Your task to perform on an android device: Search for Mexican restaurants on Maps Image 0: 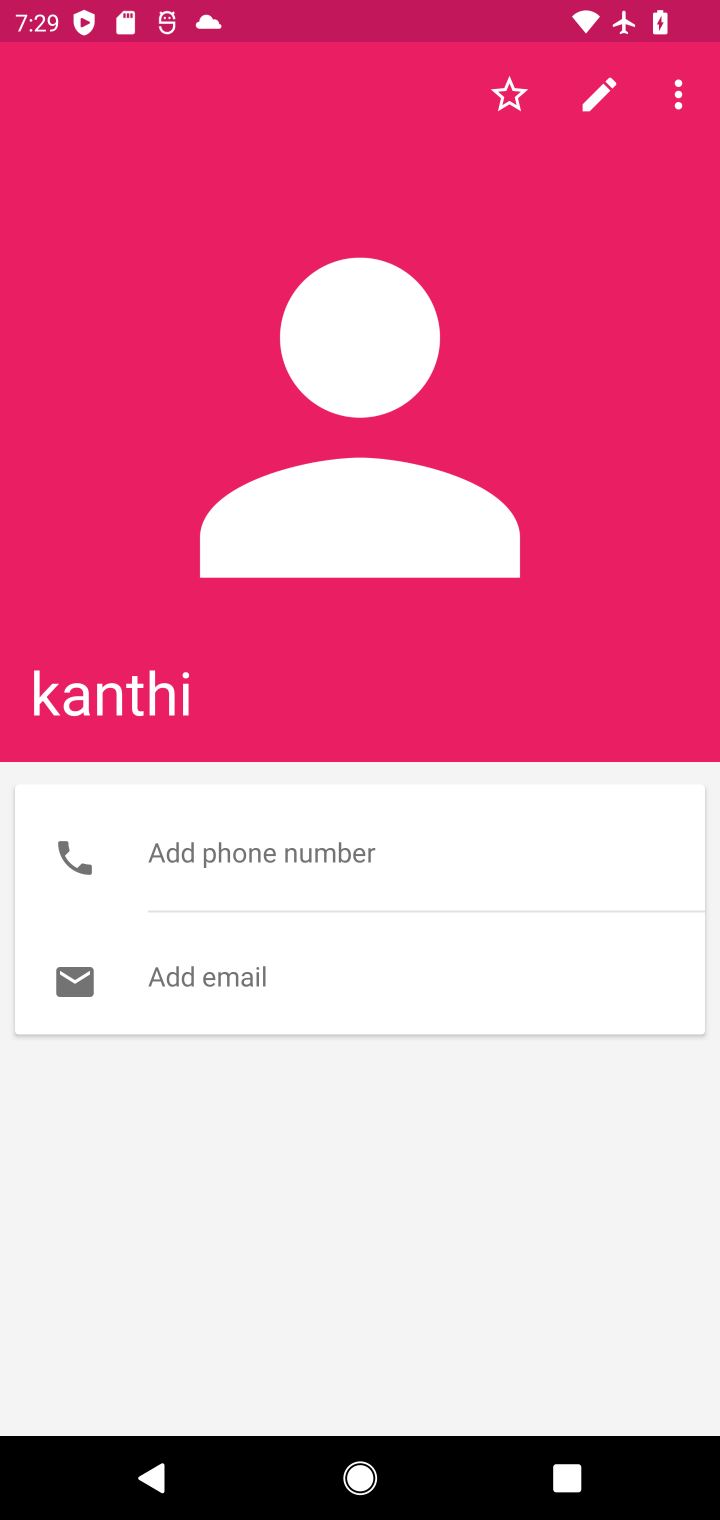
Step 0: press home button
Your task to perform on an android device: Search for Mexican restaurants on Maps Image 1: 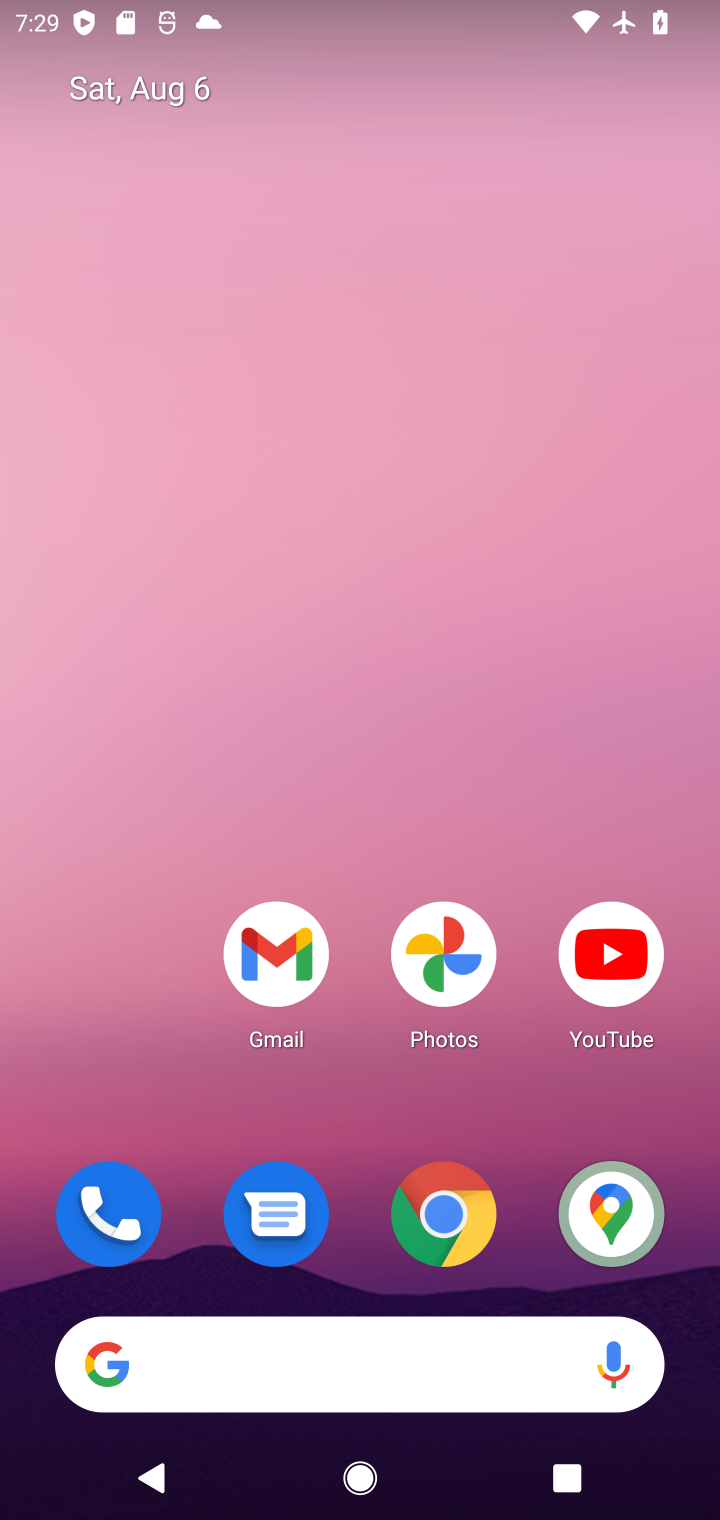
Step 1: drag from (363, 1111) to (239, 46)
Your task to perform on an android device: Search for Mexican restaurants on Maps Image 2: 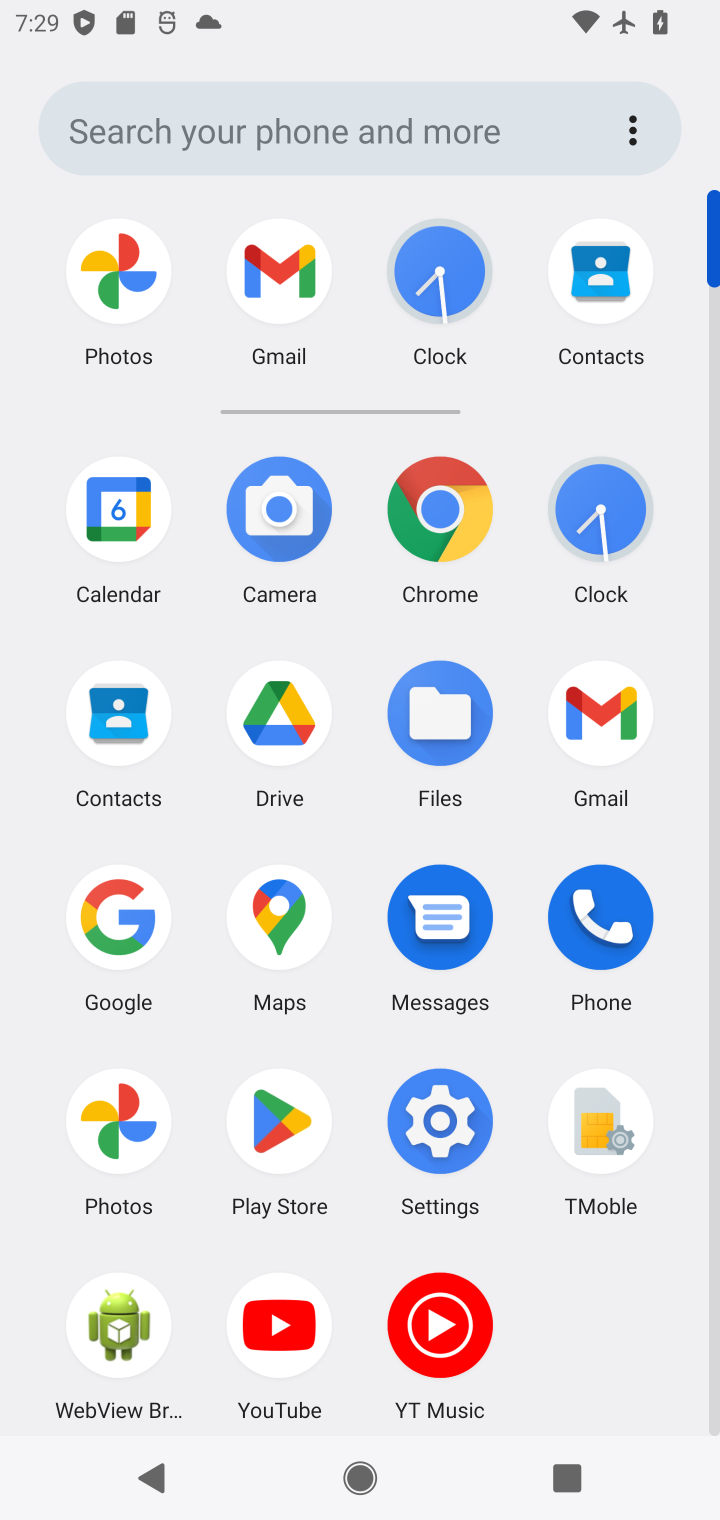
Step 2: click (287, 939)
Your task to perform on an android device: Search for Mexican restaurants on Maps Image 3: 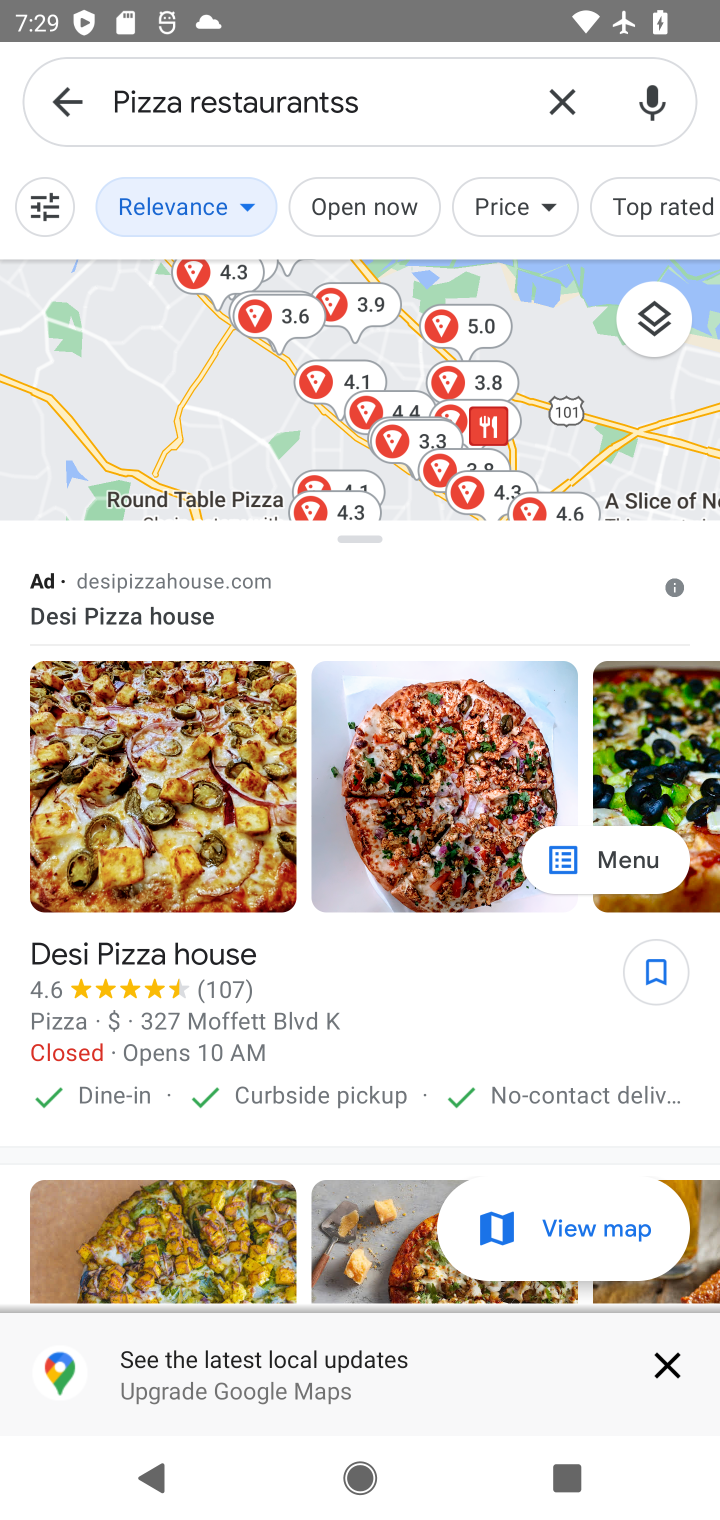
Step 3: click (139, 100)
Your task to perform on an android device: Search for Mexican restaurants on Maps Image 4: 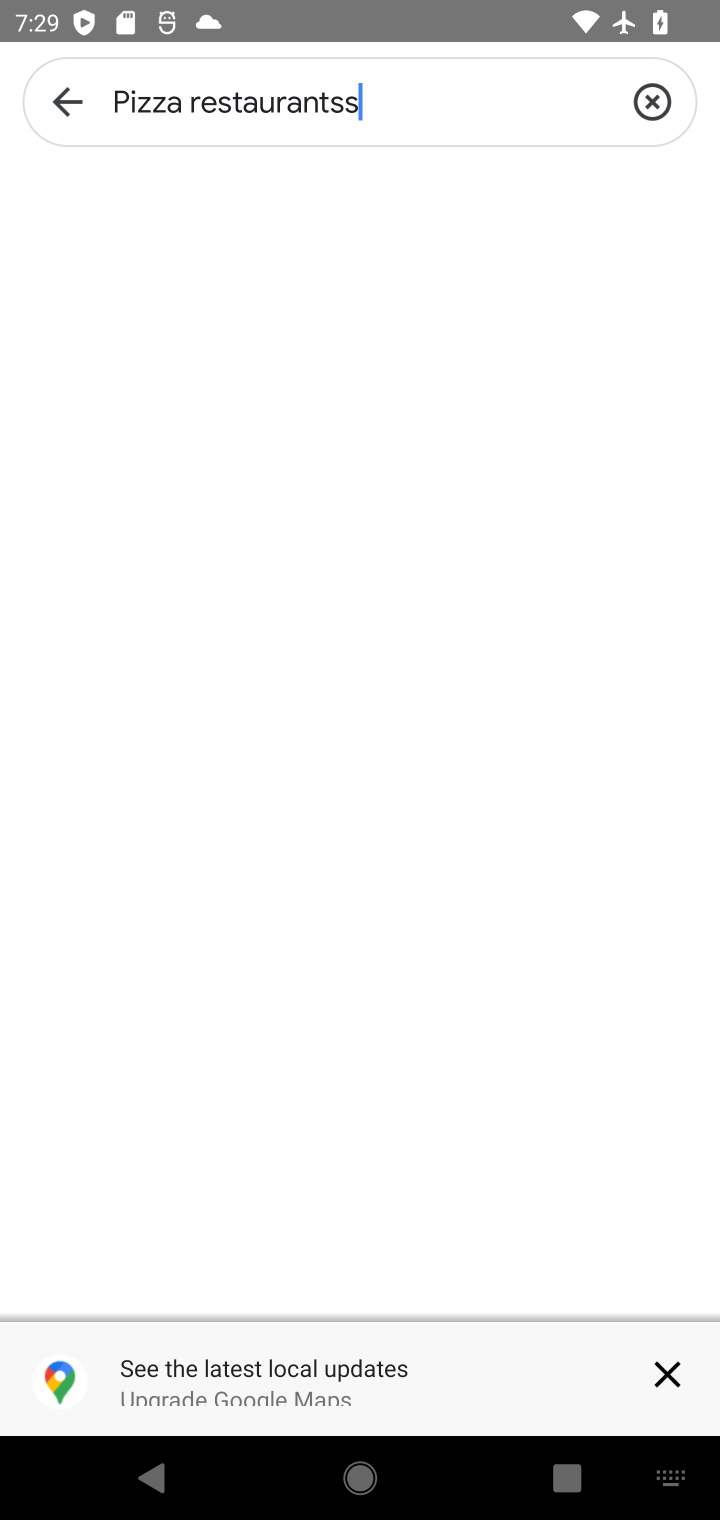
Step 4: click (147, 103)
Your task to perform on an android device: Search for Mexican restaurants on Maps Image 5: 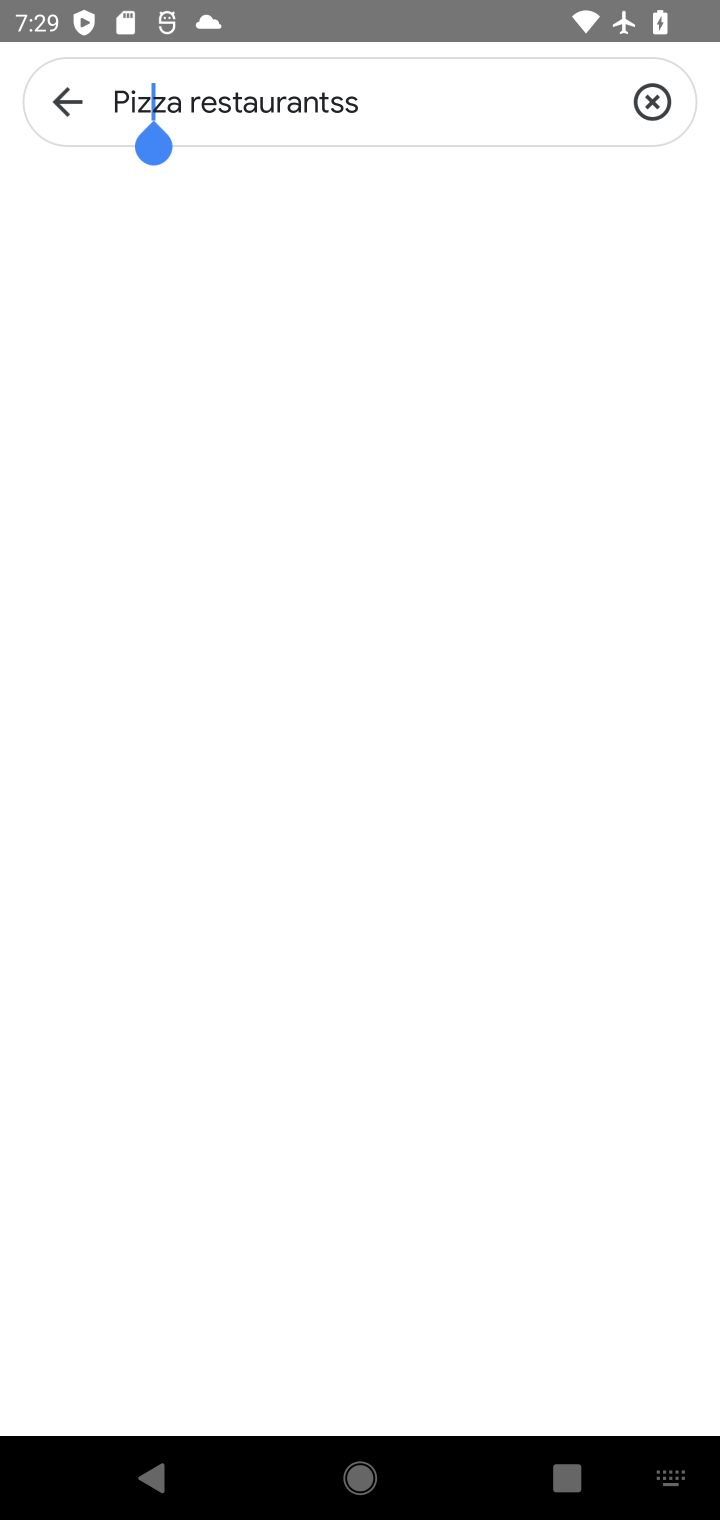
Step 5: click (156, 96)
Your task to perform on an android device: Search for Mexican restaurants on Maps Image 6: 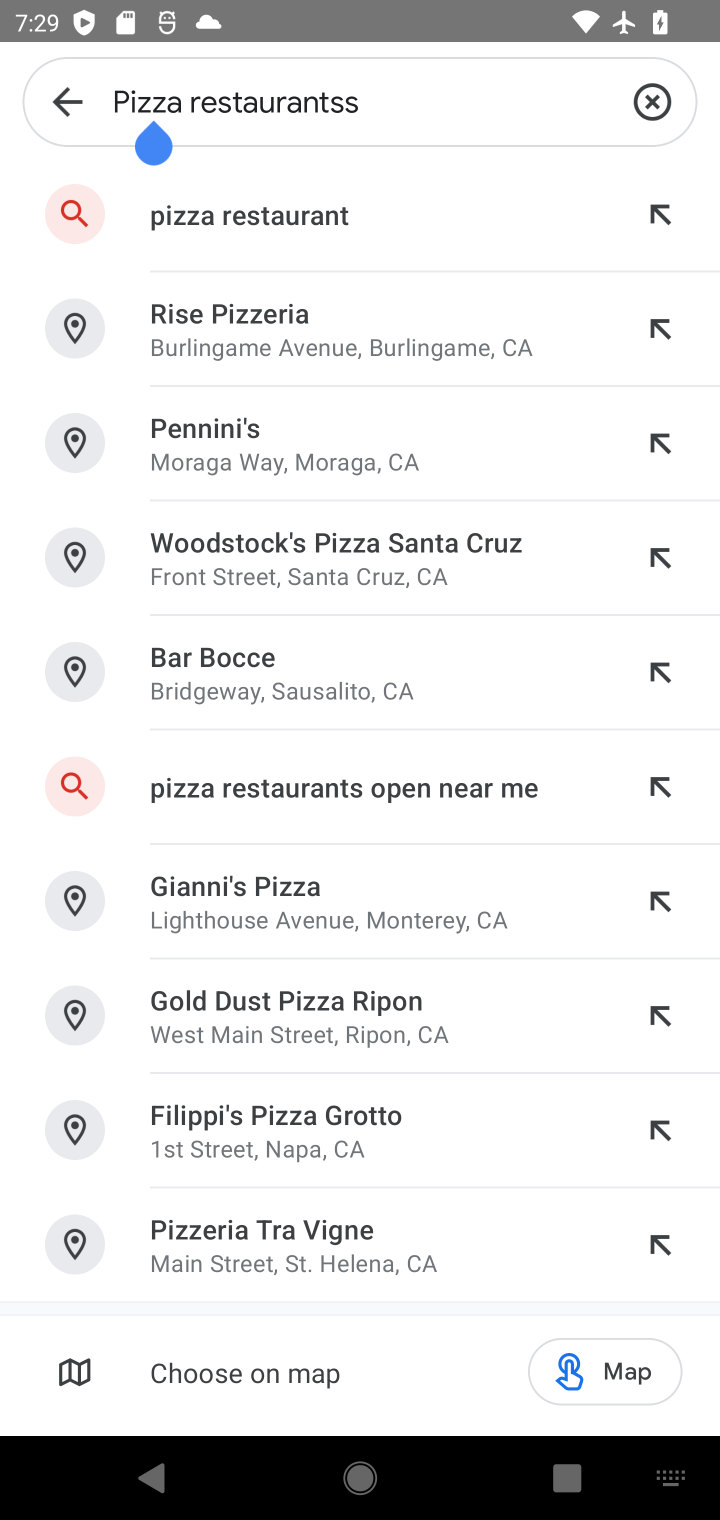
Step 6: click (649, 95)
Your task to perform on an android device: Search for Mexican restaurants on Maps Image 7: 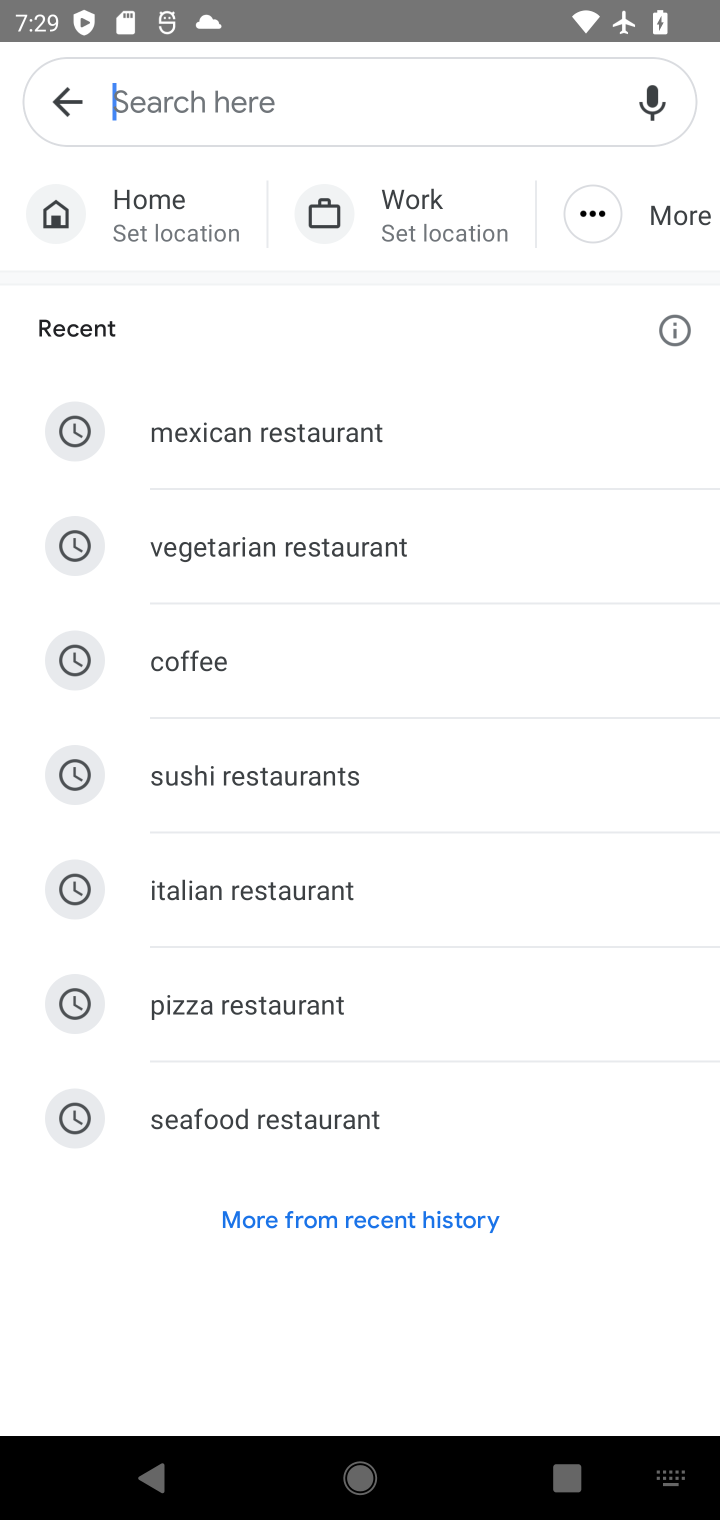
Step 7: type "mexican restaurants"
Your task to perform on an android device: Search for Mexican restaurants on Maps Image 8: 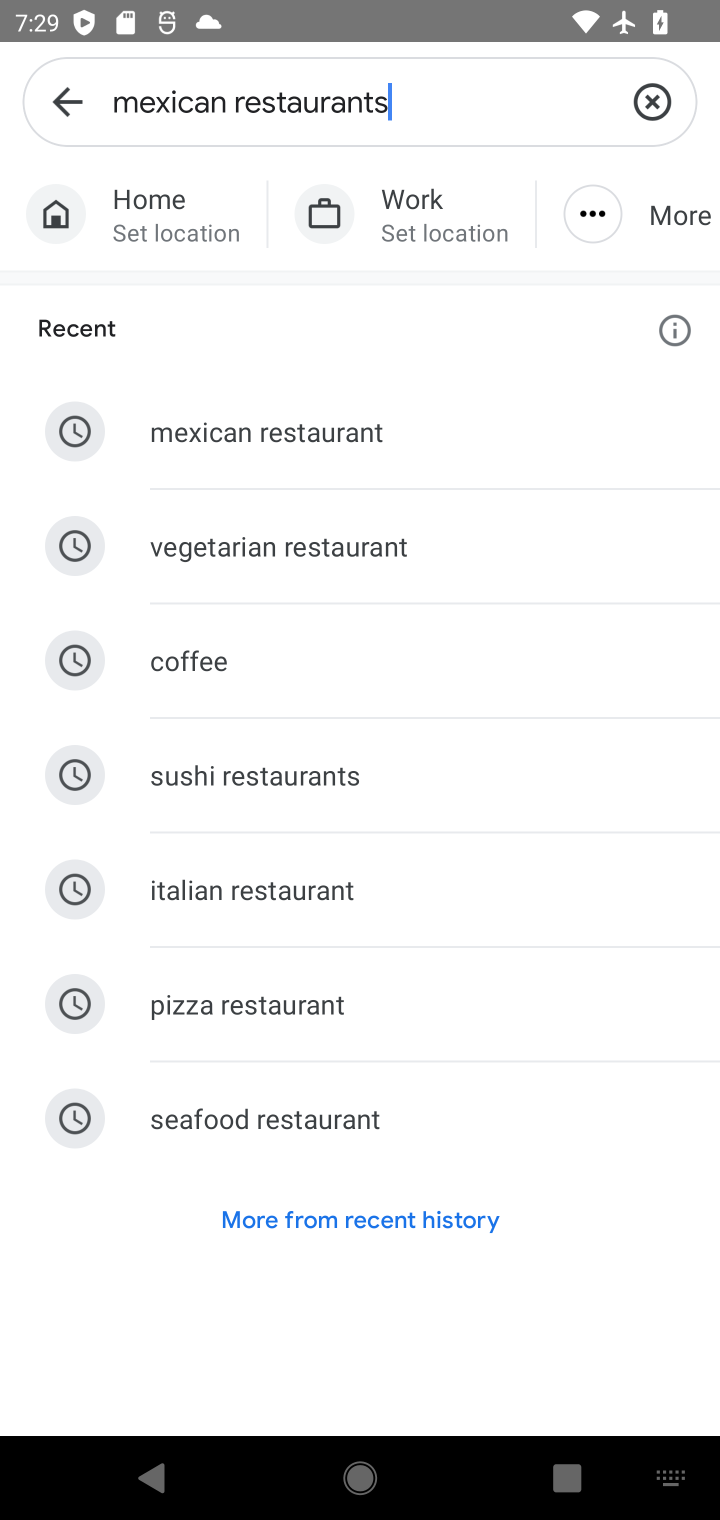
Step 8: click (343, 437)
Your task to perform on an android device: Search for Mexican restaurants on Maps Image 9: 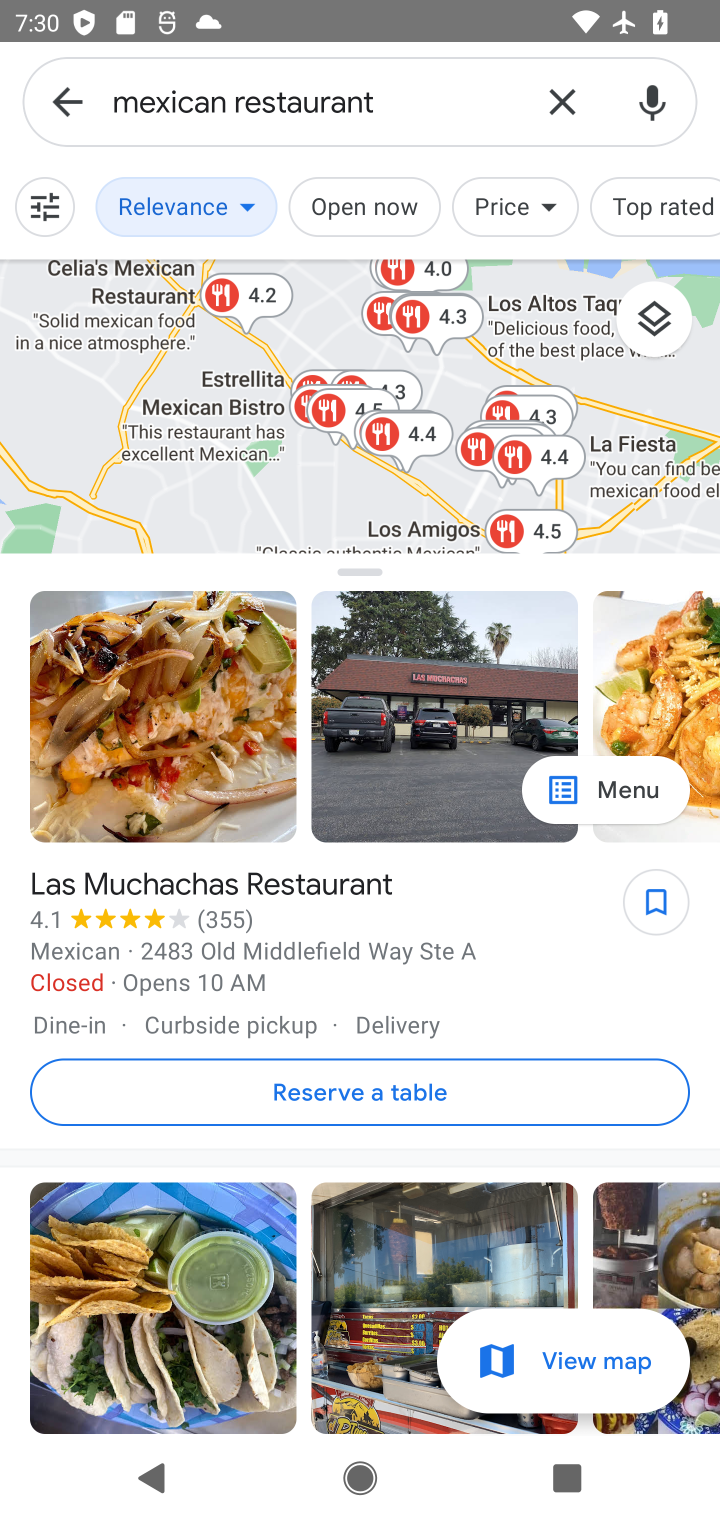
Step 9: task complete